Your task to perform on an android device: Check the news Image 0: 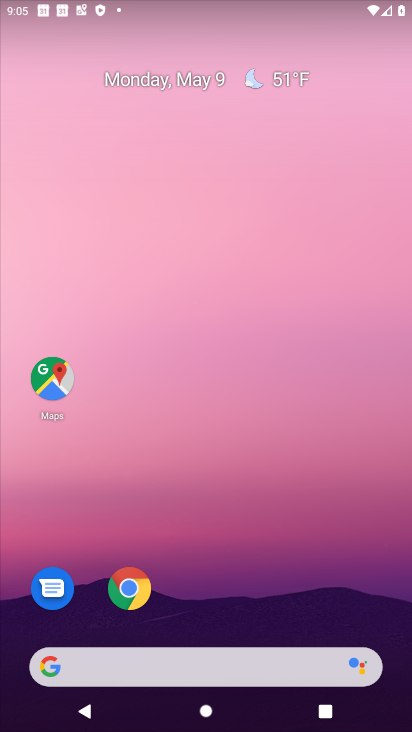
Step 0: drag from (3, 277) to (399, 245)
Your task to perform on an android device: Check the news Image 1: 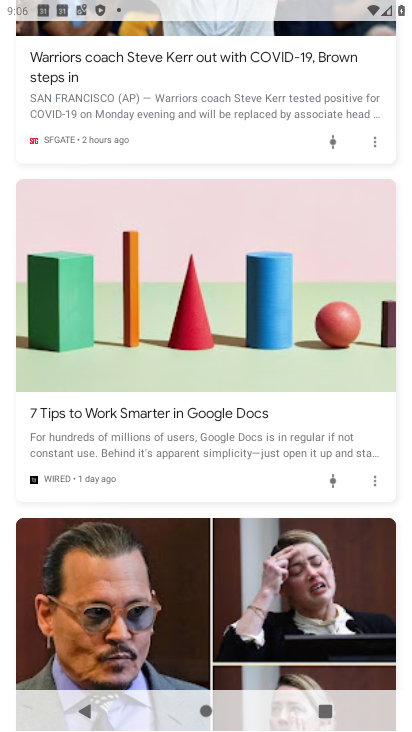
Step 1: task complete